Your task to perform on an android device: What's on my calendar tomorrow? Image 0: 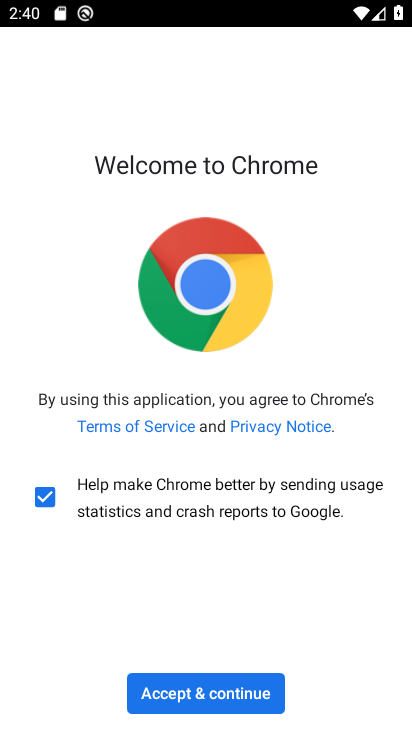
Step 0: press home button
Your task to perform on an android device: What's on my calendar tomorrow? Image 1: 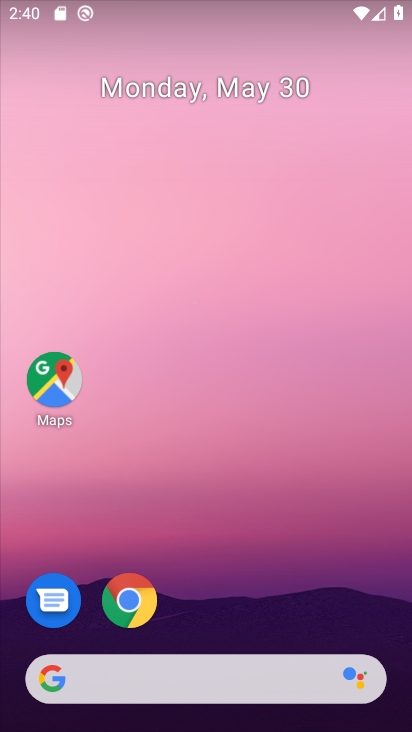
Step 1: drag from (293, 493) to (244, 96)
Your task to perform on an android device: What's on my calendar tomorrow? Image 2: 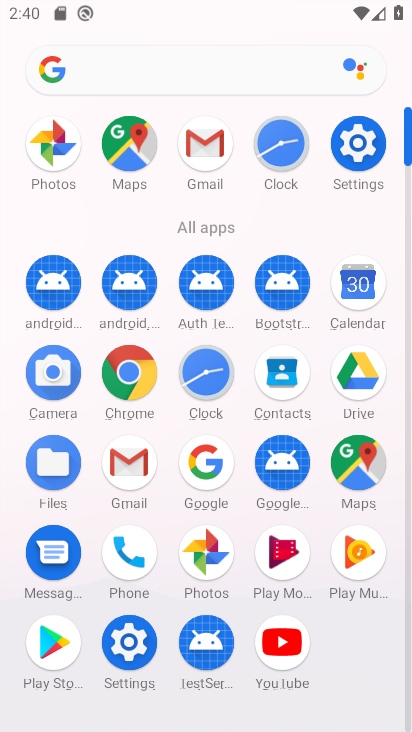
Step 2: click (362, 308)
Your task to perform on an android device: What's on my calendar tomorrow? Image 3: 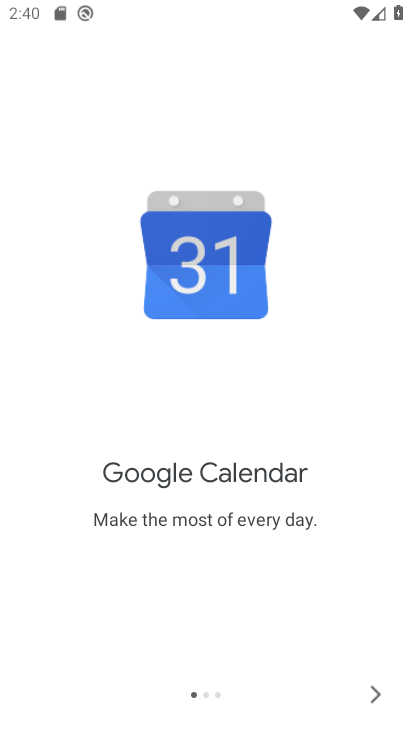
Step 3: click (375, 695)
Your task to perform on an android device: What's on my calendar tomorrow? Image 4: 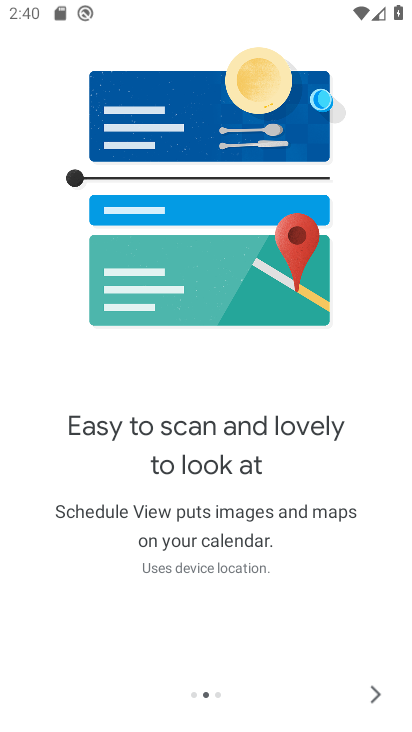
Step 4: click (380, 699)
Your task to perform on an android device: What's on my calendar tomorrow? Image 5: 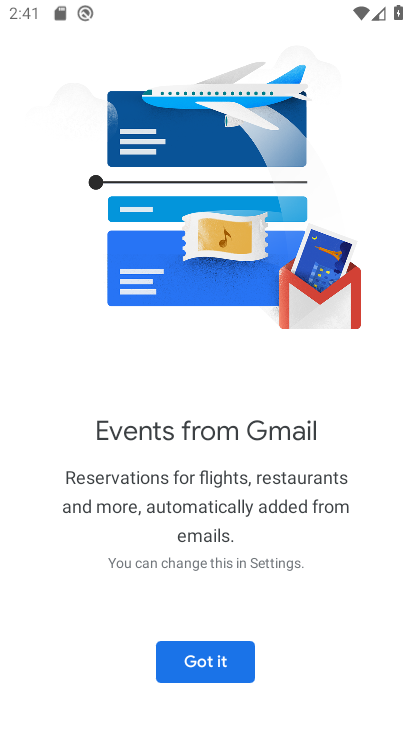
Step 5: click (209, 685)
Your task to perform on an android device: What's on my calendar tomorrow? Image 6: 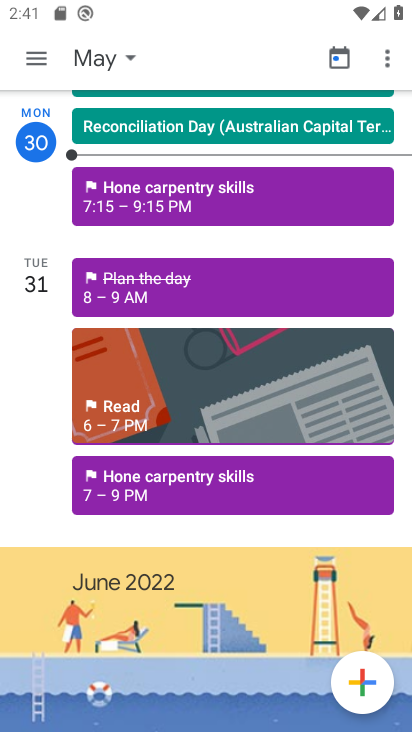
Step 6: click (76, 60)
Your task to perform on an android device: What's on my calendar tomorrow? Image 7: 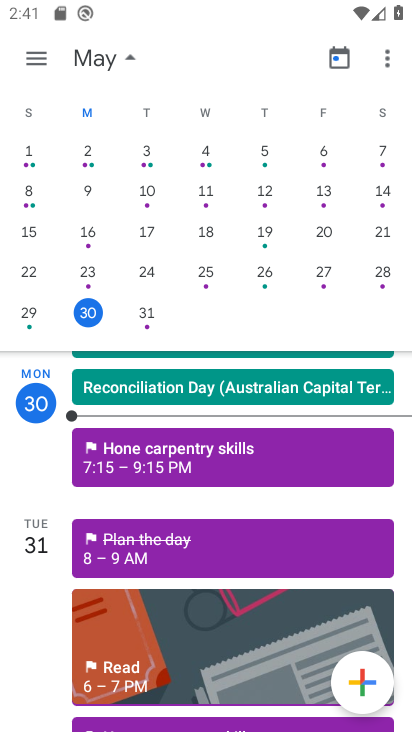
Step 7: click (150, 317)
Your task to perform on an android device: What's on my calendar tomorrow? Image 8: 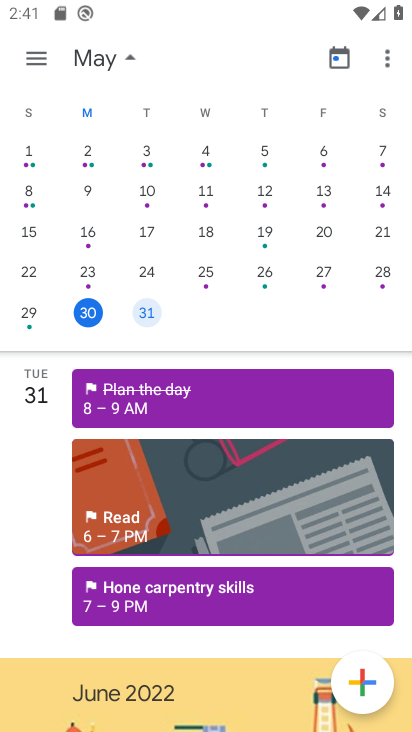
Step 8: task complete